Your task to perform on an android device: How do I get to the nearest AT&T Store? Image 0: 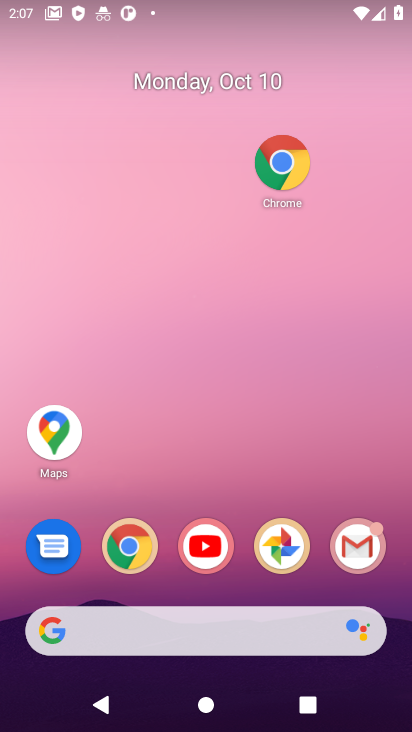
Step 0: click (111, 544)
Your task to perform on an android device: How do I get to the nearest AT&T Store? Image 1: 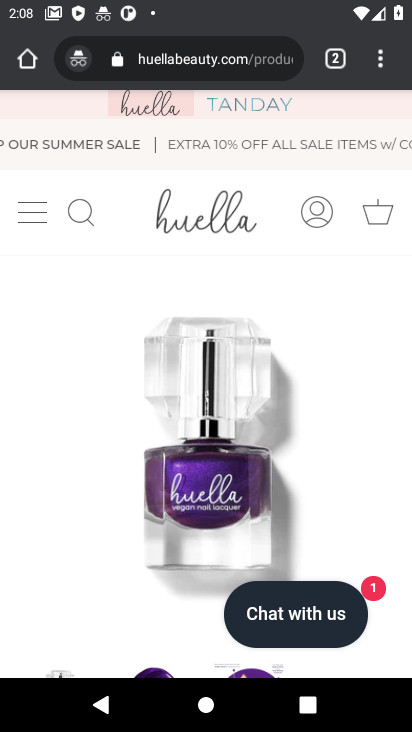
Step 1: click (175, 74)
Your task to perform on an android device: How do I get to the nearest AT&T Store? Image 2: 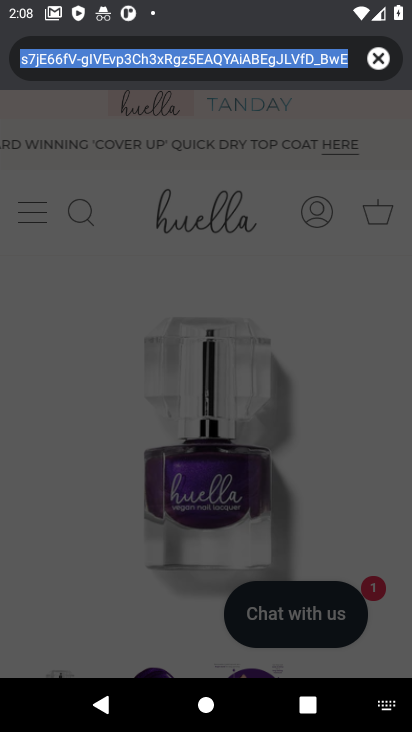
Step 2: type "How do I get to the nearest AT&T Store?"
Your task to perform on an android device: How do I get to the nearest AT&T Store? Image 3: 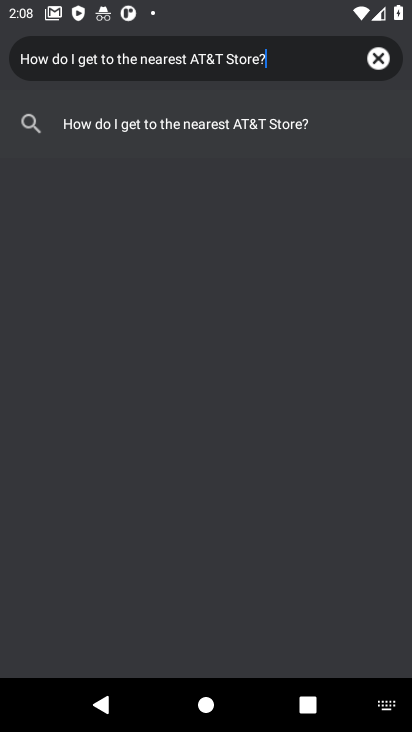
Step 3: click (263, 121)
Your task to perform on an android device: How do I get to the nearest AT&T Store? Image 4: 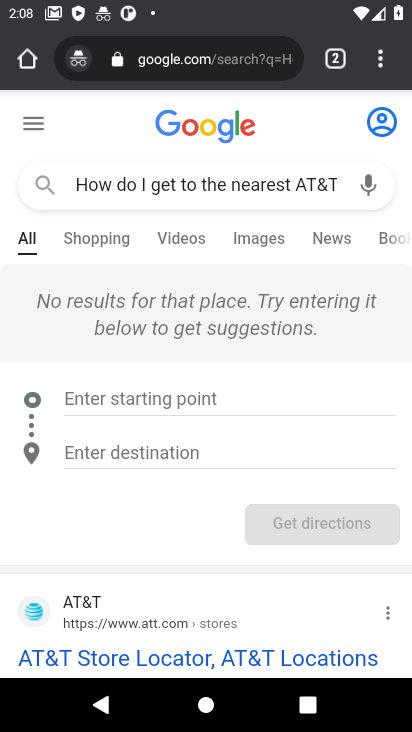
Step 4: drag from (166, 586) to (170, 248)
Your task to perform on an android device: How do I get to the nearest AT&T Store? Image 5: 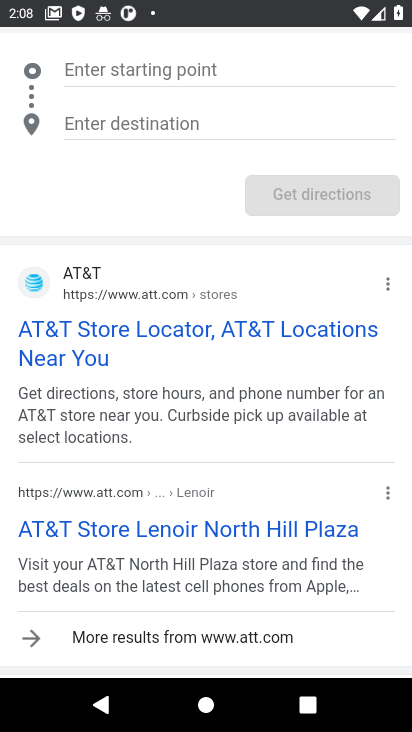
Step 5: click (189, 333)
Your task to perform on an android device: How do I get to the nearest AT&T Store? Image 6: 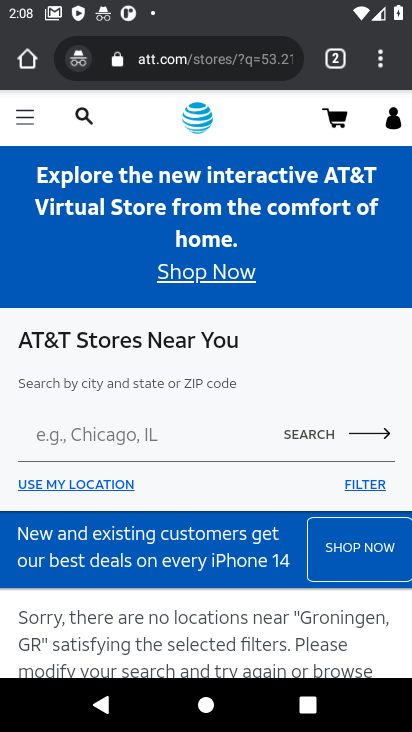
Step 6: task complete